Your task to perform on an android device: Open my contact list Image 0: 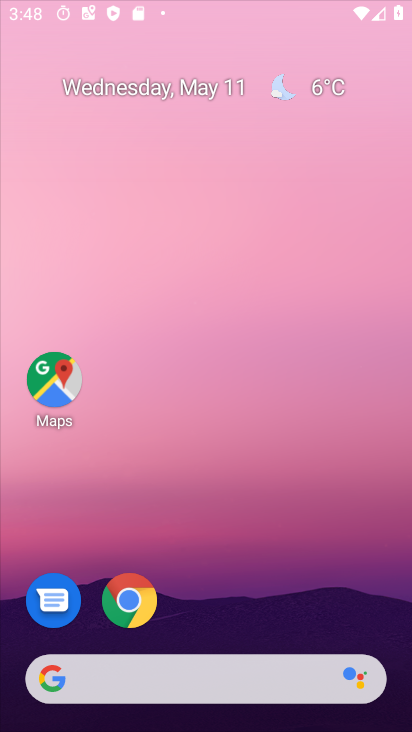
Step 0: drag from (355, 599) to (197, 267)
Your task to perform on an android device: Open my contact list Image 1: 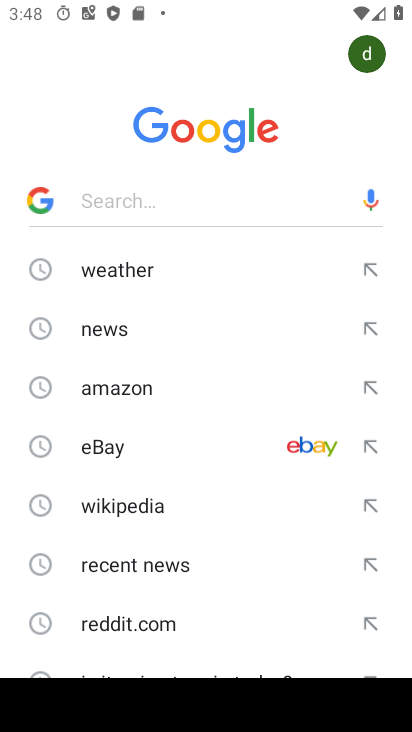
Step 1: press back button
Your task to perform on an android device: Open my contact list Image 2: 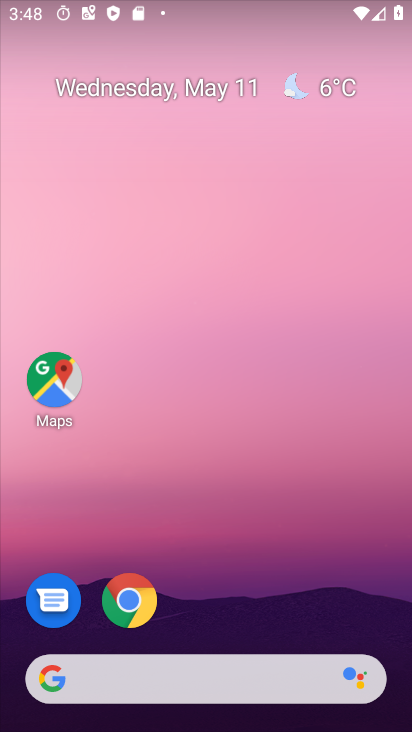
Step 2: drag from (266, 658) to (191, 165)
Your task to perform on an android device: Open my contact list Image 3: 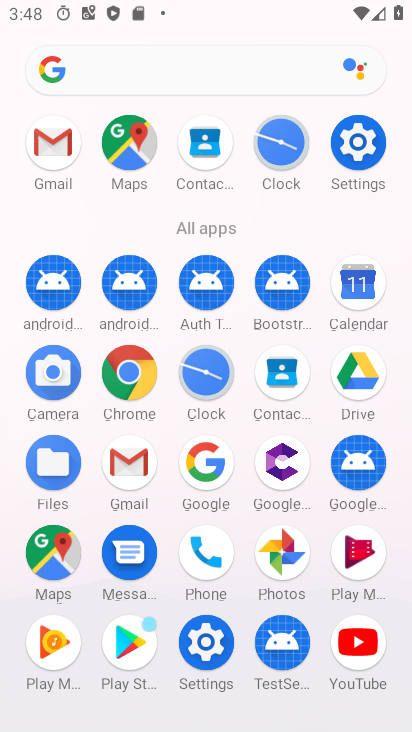
Step 3: click (282, 404)
Your task to perform on an android device: Open my contact list Image 4: 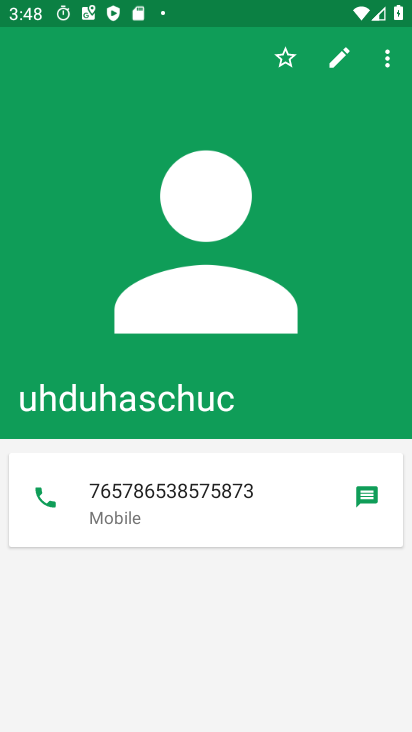
Step 4: click (382, 59)
Your task to perform on an android device: Open my contact list Image 5: 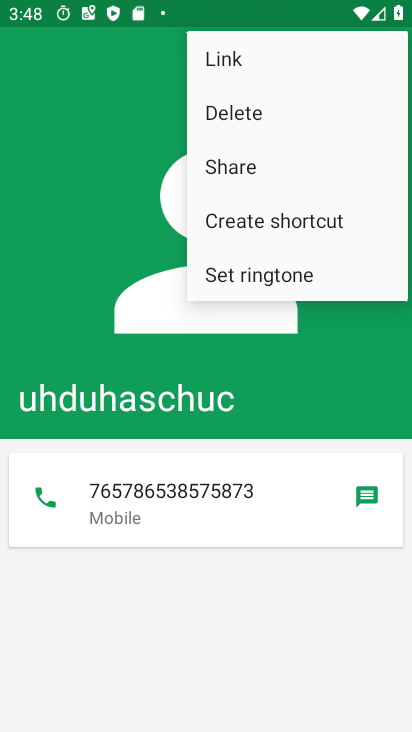
Step 5: click (121, 284)
Your task to perform on an android device: Open my contact list Image 6: 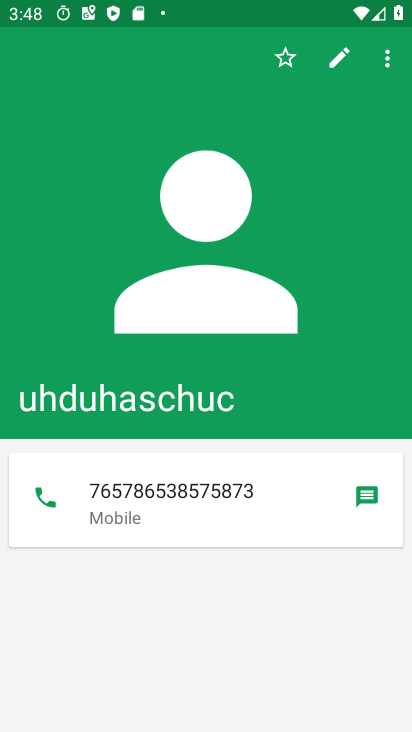
Step 6: task complete